Your task to perform on an android device: Is it going to rain this weekend? Image 0: 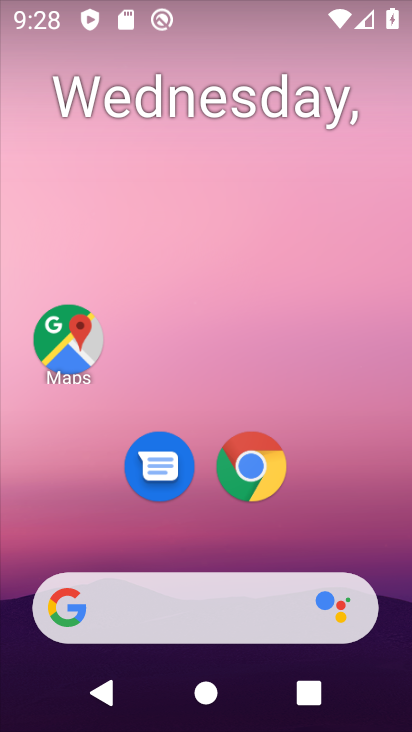
Step 0: click (250, 482)
Your task to perform on an android device: Is it going to rain this weekend? Image 1: 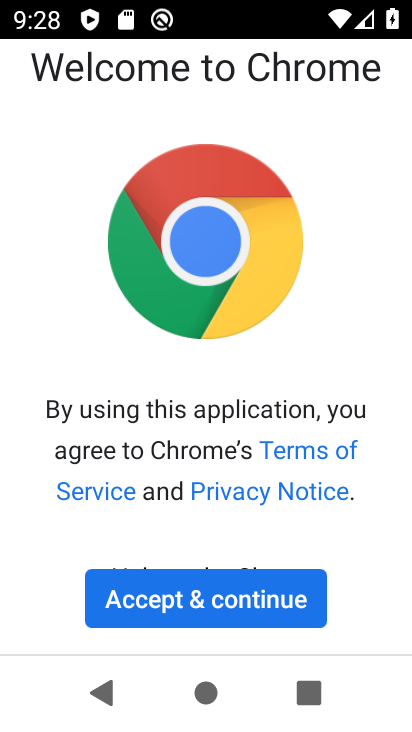
Step 1: click (159, 606)
Your task to perform on an android device: Is it going to rain this weekend? Image 2: 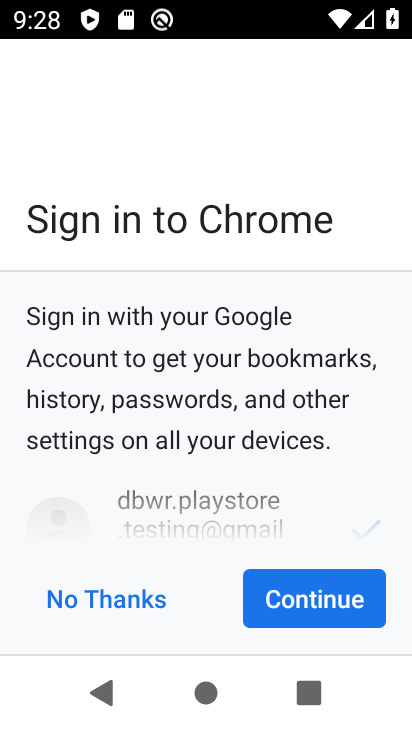
Step 2: click (262, 601)
Your task to perform on an android device: Is it going to rain this weekend? Image 3: 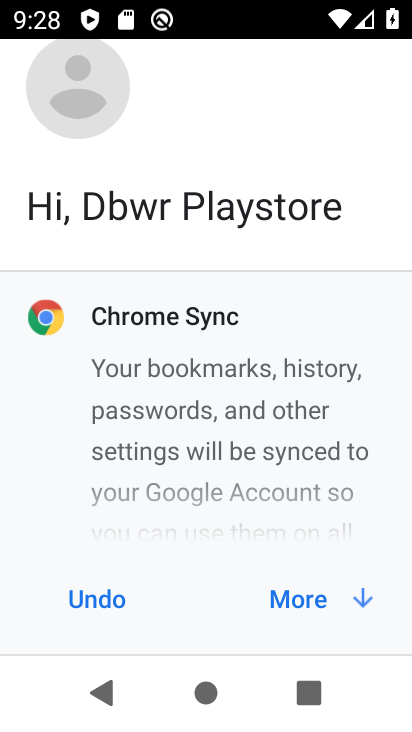
Step 3: click (293, 598)
Your task to perform on an android device: Is it going to rain this weekend? Image 4: 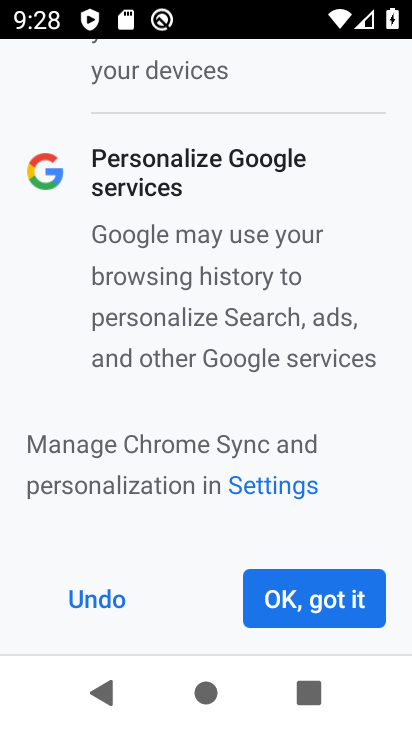
Step 4: click (293, 598)
Your task to perform on an android device: Is it going to rain this weekend? Image 5: 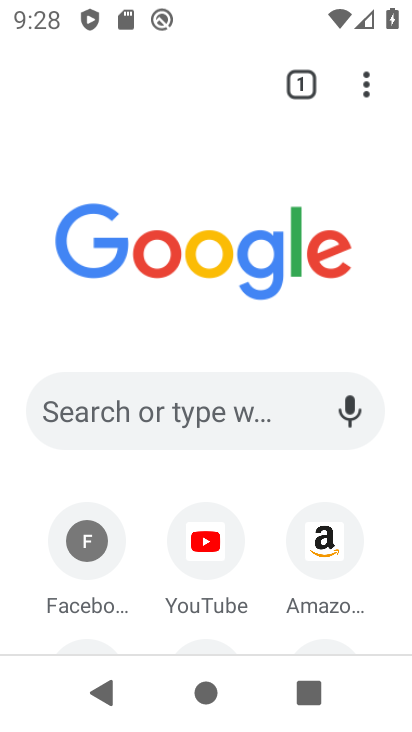
Step 5: click (217, 413)
Your task to perform on an android device: Is it going to rain this weekend? Image 6: 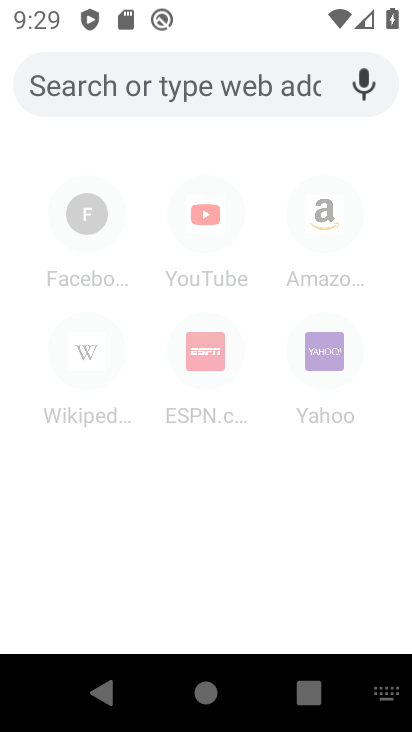
Step 6: type "is it going to rain this weekend?"
Your task to perform on an android device: Is it going to rain this weekend? Image 7: 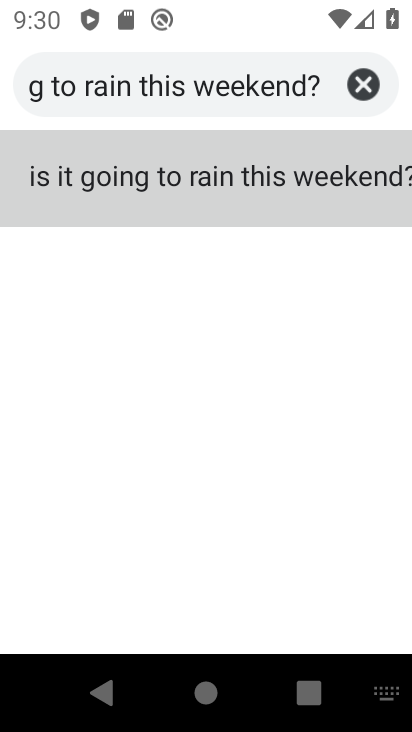
Step 7: click (247, 182)
Your task to perform on an android device: Is it going to rain this weekend? Image 8: 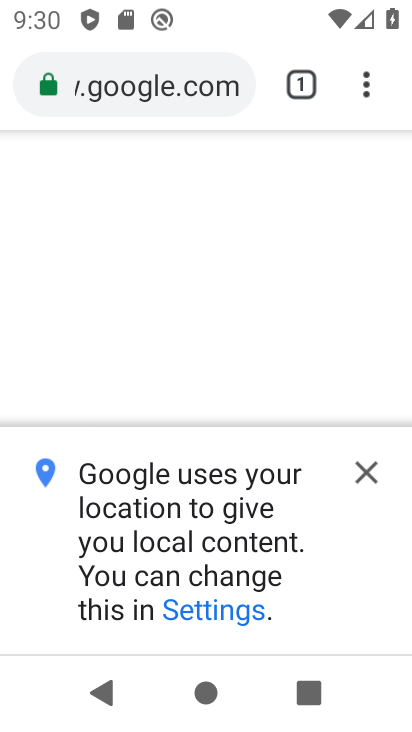
Step 8: click (371, 478)
Your task to perform on an android device: Is it going to rain this weekend? Image 9: 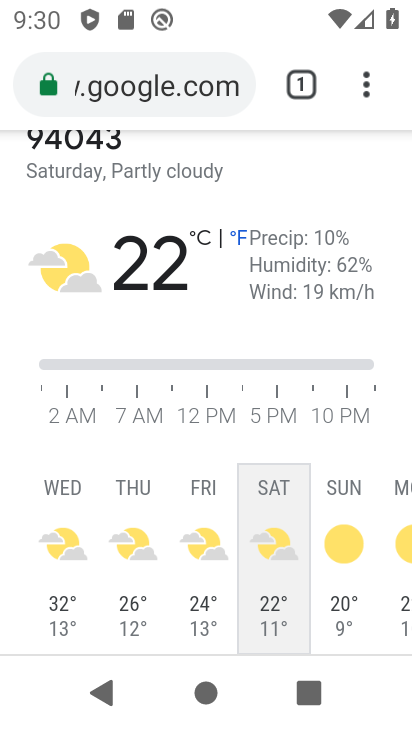
Step 9: drag from (298, 572) to (301, 290)
Your task to perform on an android device: Is it going to rain this weekend? Image 10: 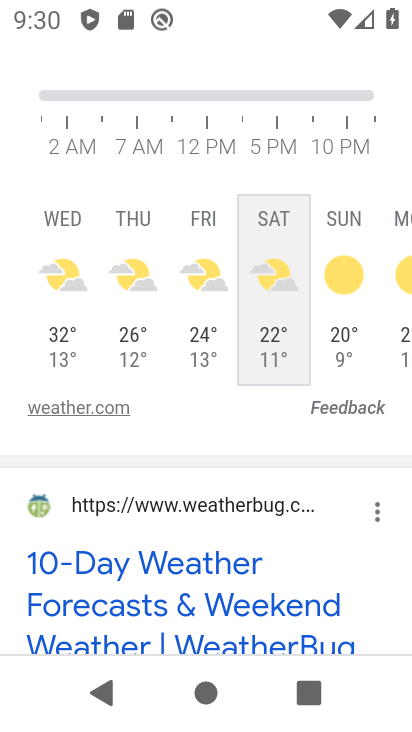
Step 10: drag from (295, 220) to (271, 544)
Your task to perform on an android device: Is it going to rain this weekend? Image 11: 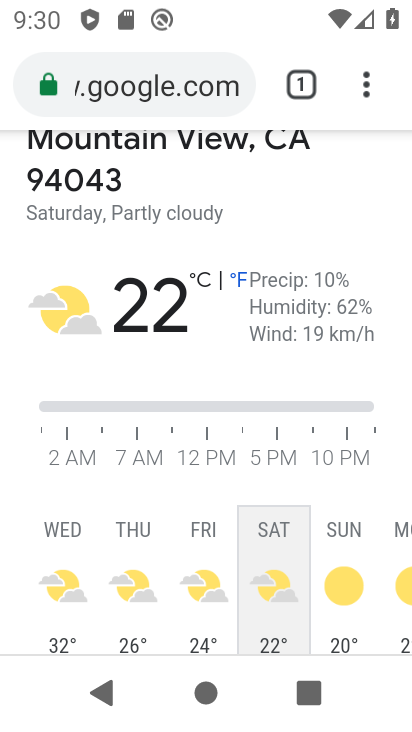
Step 11: click (344, 552)
Your task to perform on an android device: Is it going to rain this weekend? Image 12: 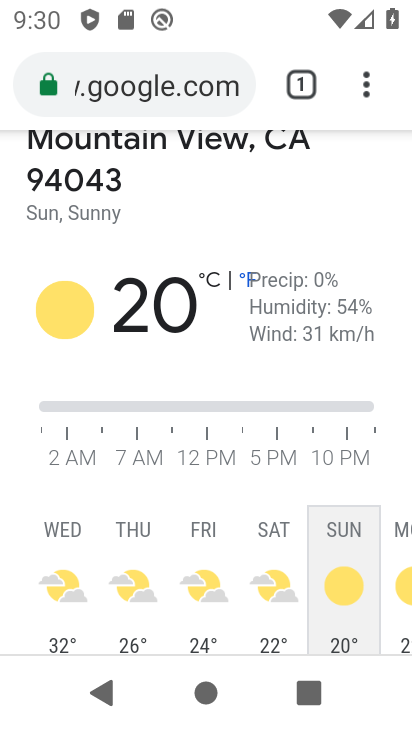
Step 12: click (285, 582)
Your task to perform on an android device: Is it going to rain this weekend? Image 13: 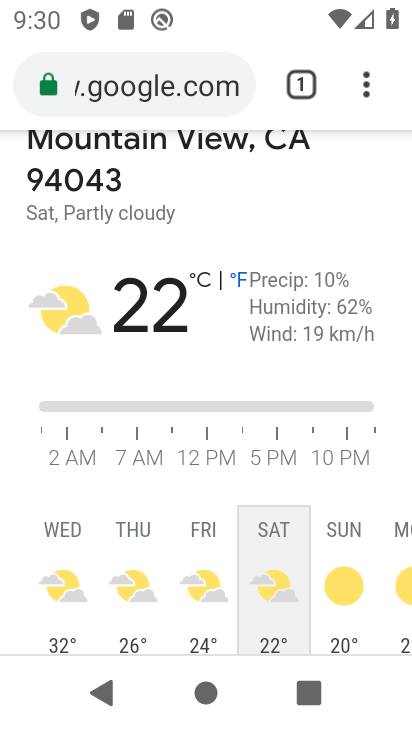
Step 13: task complete